Your task to perform on an android device: Go to CNN.com Image 0: 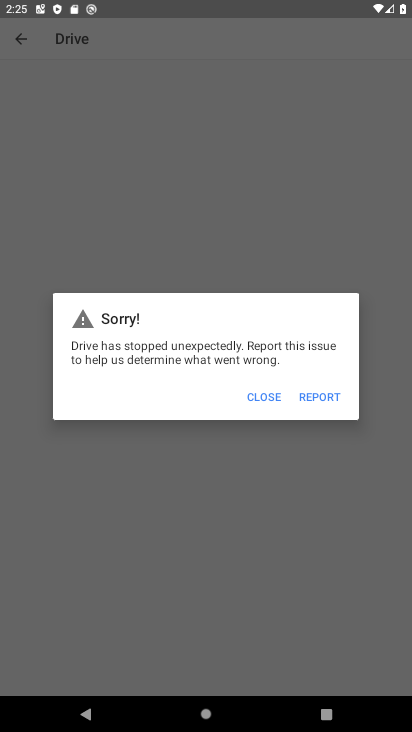
Step 0: press home button
Your task to perform on an android device: Go to CNN.com Image 1: 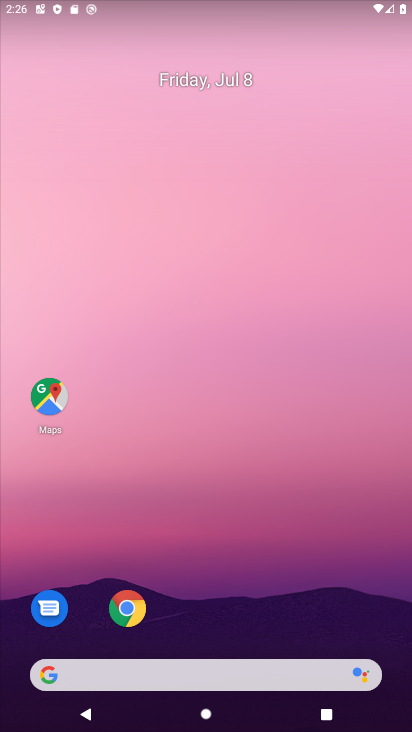
Step 1: drag from (212, 695) to (242, 33)
Your task to perform on an android device: Go to CNN.com Image 2: 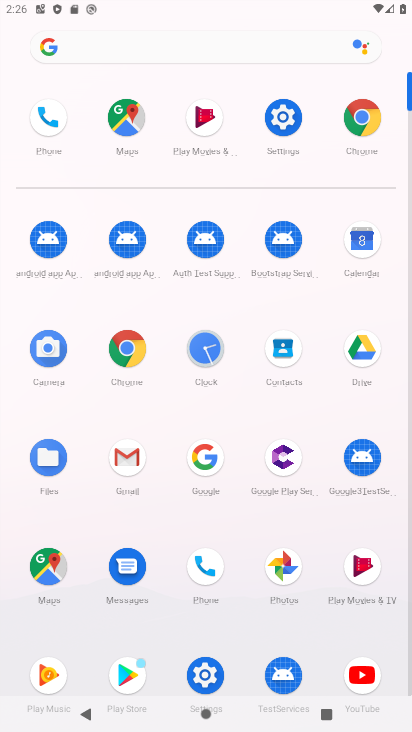
Step 2: click (124, 339)
Your task to perform on an android device: Go to CNN.com Image 3: 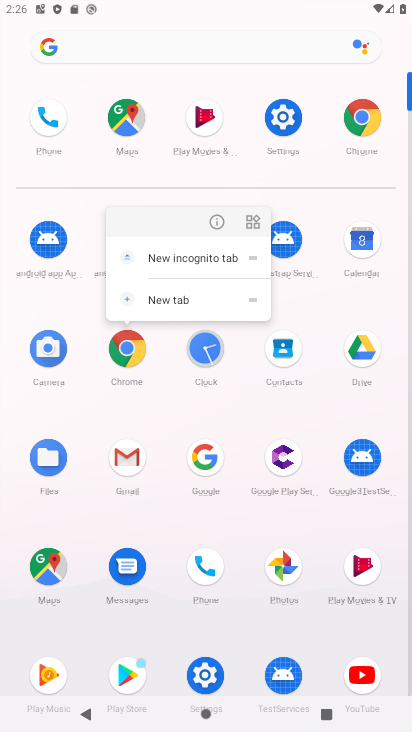
Step 3: click (122, 346)
Your task to perform on an android device: Go to CNN.com Image 4: 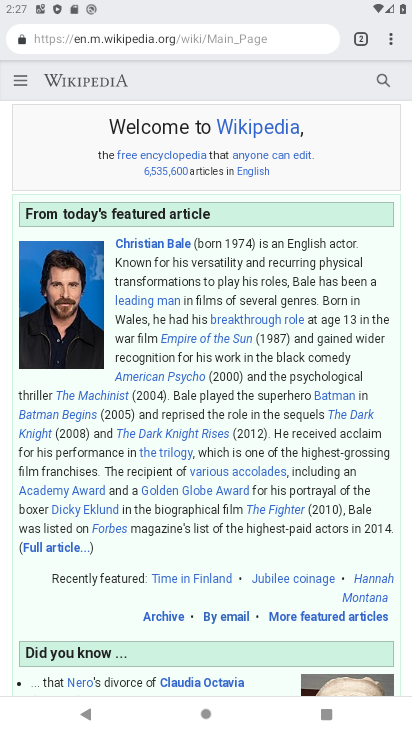
Step 4: click (188, 48)
Your task to perform on an android device: Go to CNN.com Image 5: 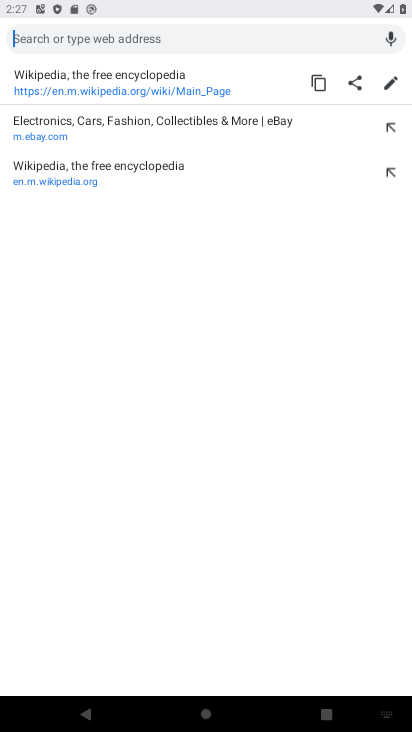
Step 5: type "cnn.com"
Your task to perform on an android device: Go to CNN.com Image 6: 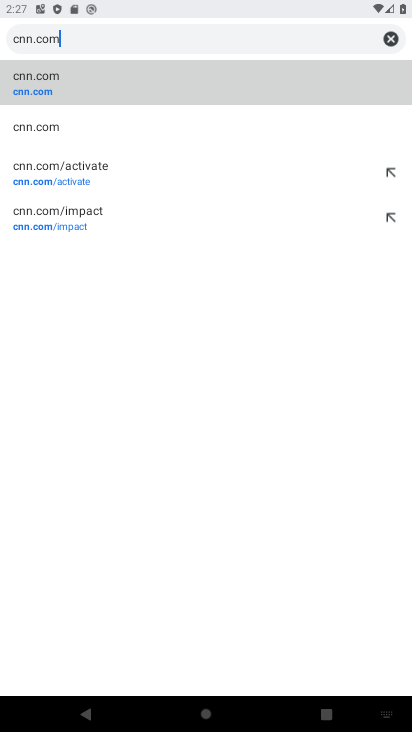
Step 6: click (41, 91)
Your task to perform on an android device: Go to CNN.com Image 7: 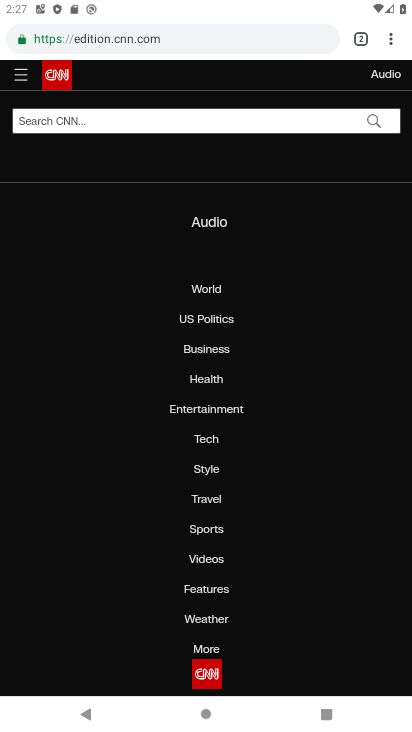
Step 7: task complete